Your task to perform on an android device: Go to Yahoo.com Image 0: 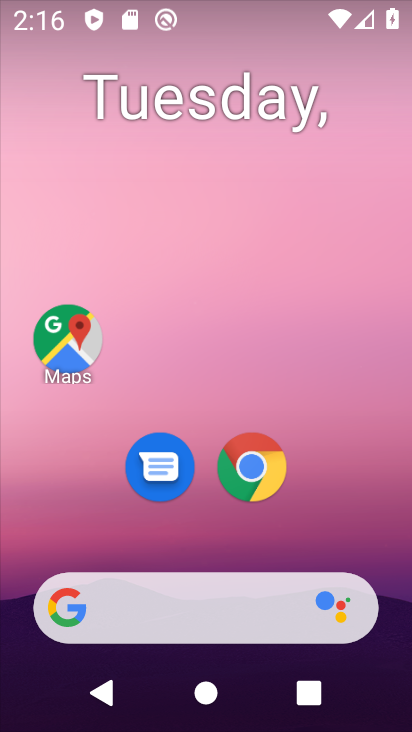
Step 0: drag from (380, 548) to (381, 140)
Your task to perform on an android device: Go to Yahoo.com Image 1: 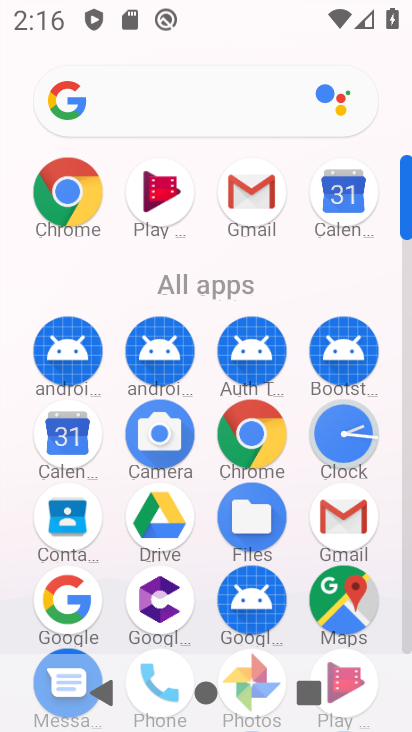
Step 1: click (259, 436)
Your task to perform on an android device: Go to Yahoo.com Image 2: 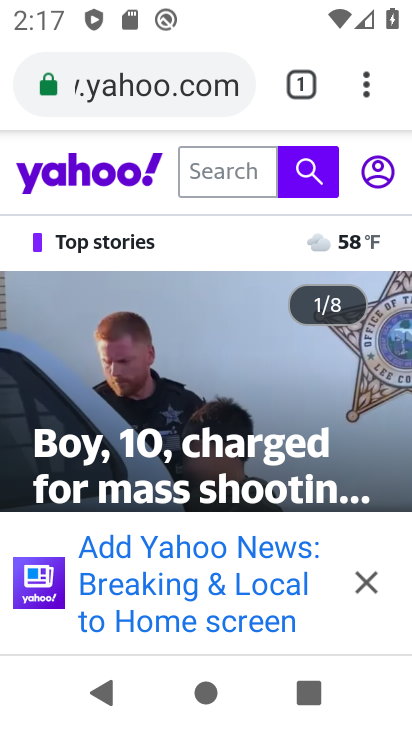
Step 2: task complete